Your task to perform on an android device: Open Amazon Image 0: 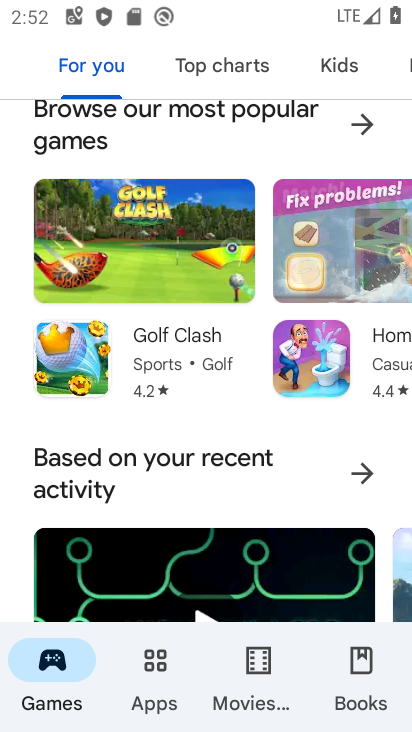
Step 0: press home button
Your task to perform on an android device: Open Amazon Image 1: 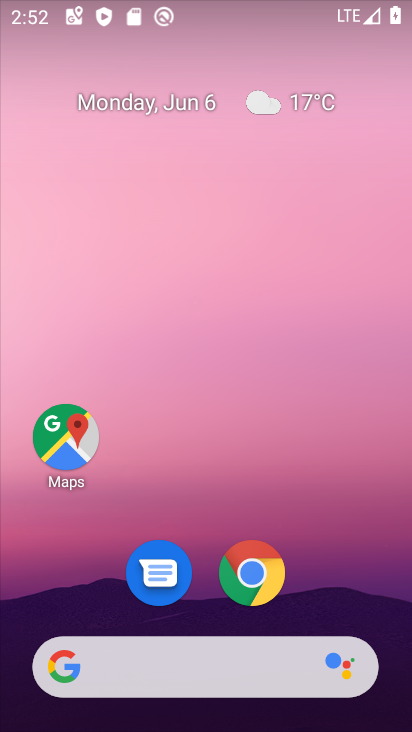
Step 1: drag from (330, 590) to (330, 202)
Your task to perform on an android device: Open Amazon Image 2: 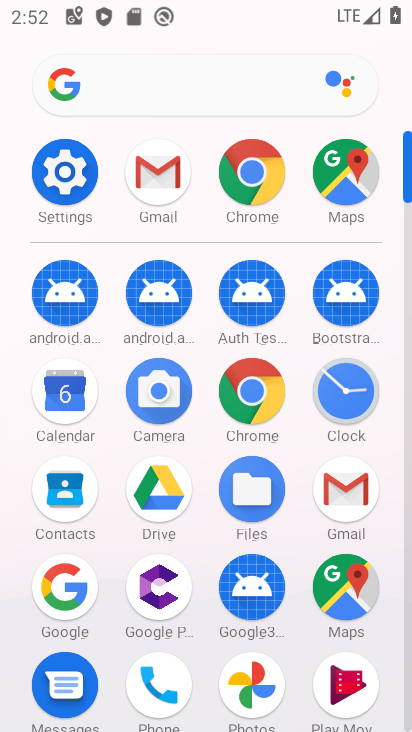
Step 2: click (275, 398)
Your task to perform on an android device: Open Amazon Image 3: 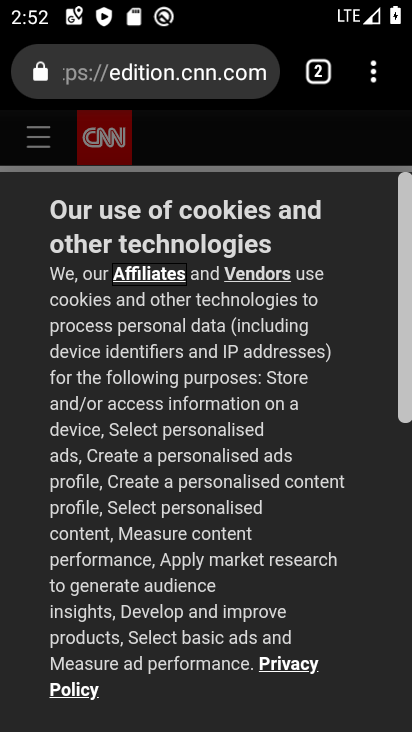
Step 3: click (220, 82)
Your task to perform on an android device: Open Amazon Image 4: 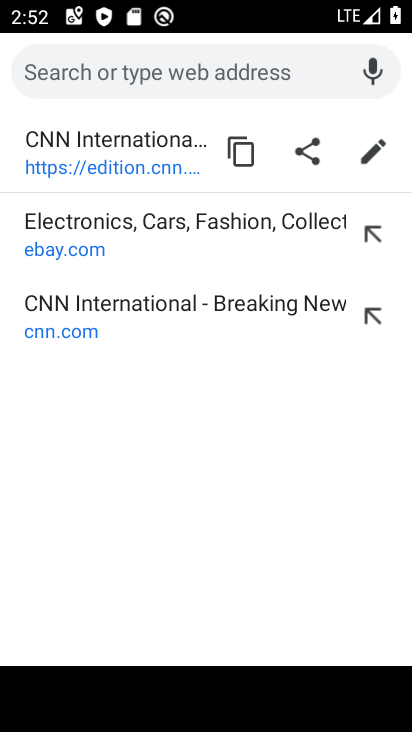
Step 4: type "amazon"
Your task to perform on an android device: Open Amazon Image 5: 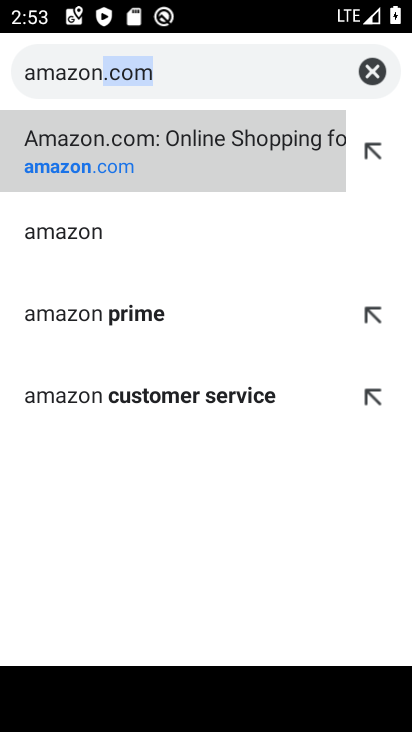
Step 5: click (137, 150)
Your task to perform on an android device: Open Amazon Image 6: 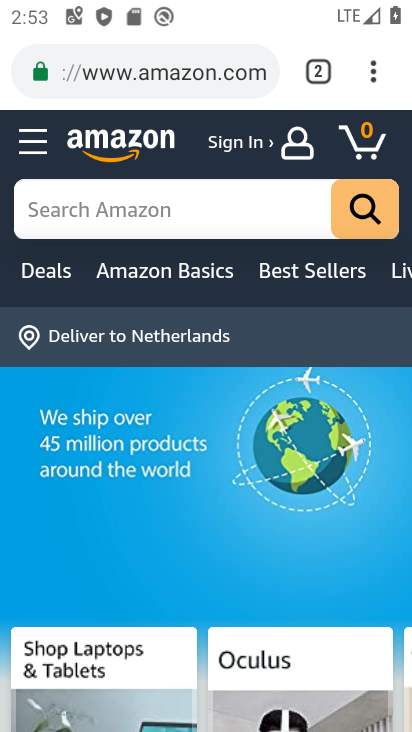
Step 6: task complete